Your task to perform on an android device: see tabs open on other devices in the chrome app Image 0: 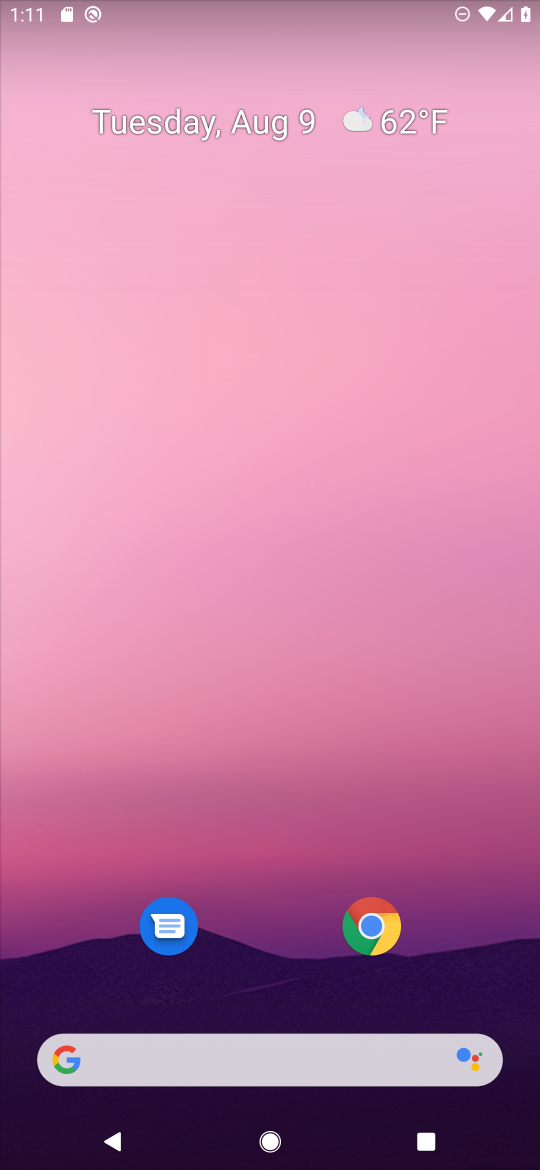
Step 0: click (377, 918)
Your task to perform on an android device: see tabs open on other devices in the chrome app Image 1: 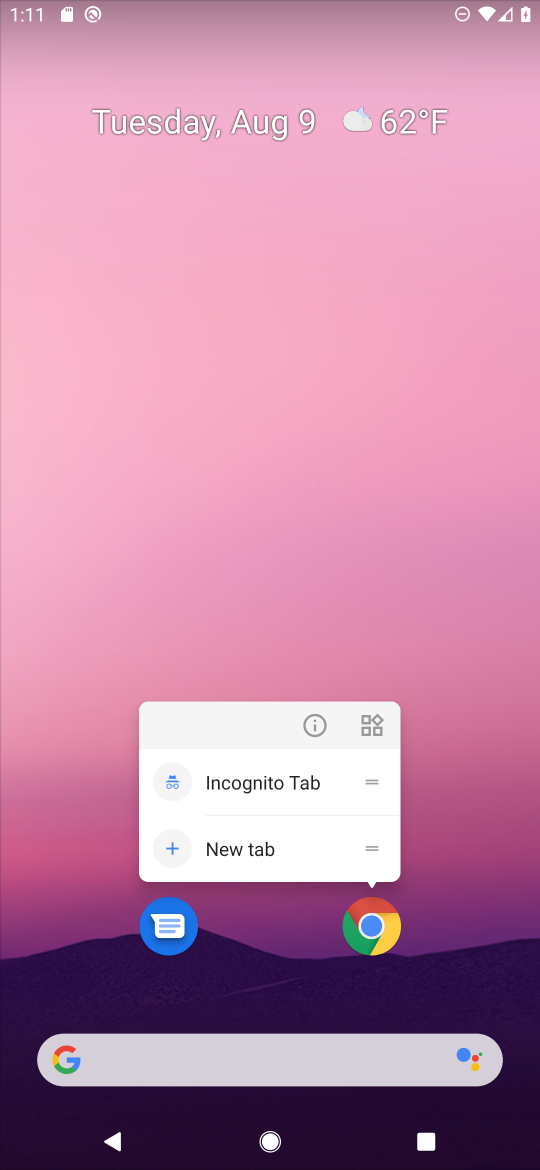
Step 1: click (366, 913)
Your task to perform on an android device: see tabs open on other devices in the chrome app Image 2: 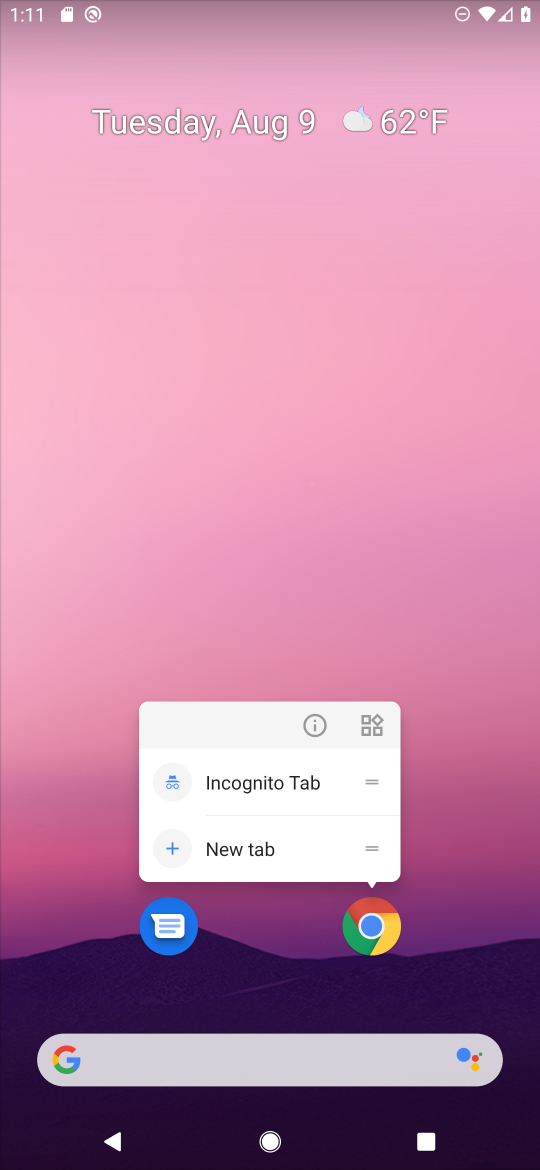
Step 2: click (366, 913)
Your task to perform on an android device: see tabs open on other devices in the chrome app Image 3: 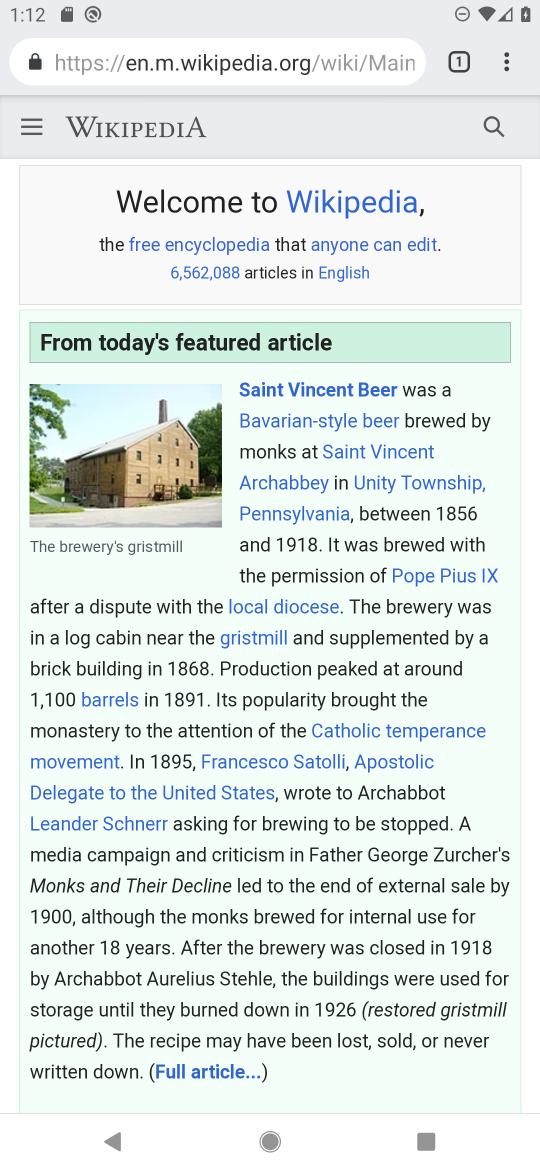
Step 3: click (454, 67)
Your task to perform on an android device: see tabs open on other devices in the chrome app Image 4: 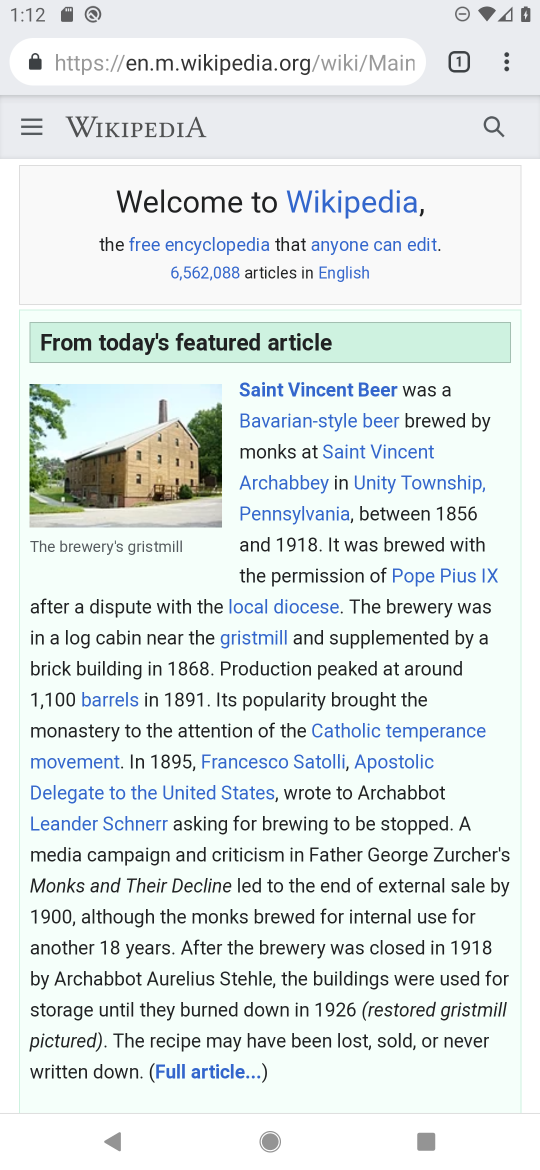
Step 4: click (450, 57)
Your task to perform on an android device: see tabs open on other devices in the chrome app Image 5: 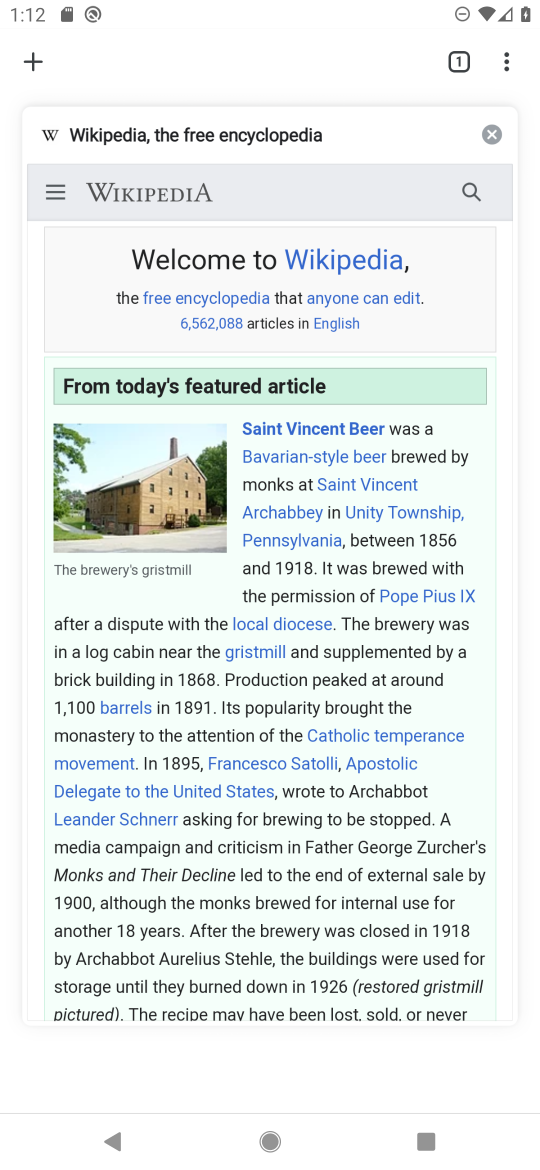
Step 5: task complete